Your task to perform on an android device: turn on sleep mode Image 0: 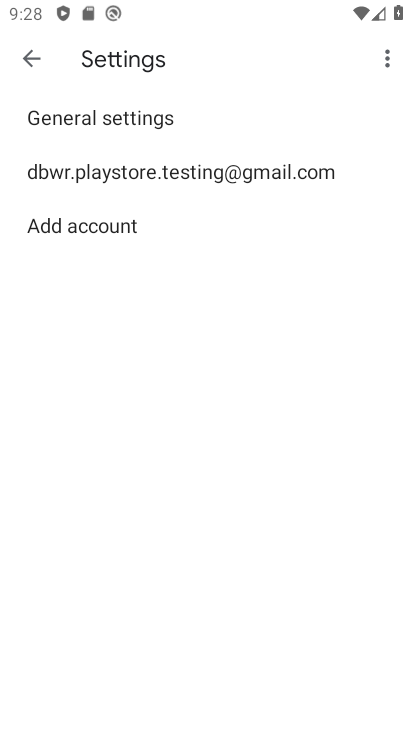
Step 0: press back button
Your task to perform on an android device: turn on sleep mode Image 1: 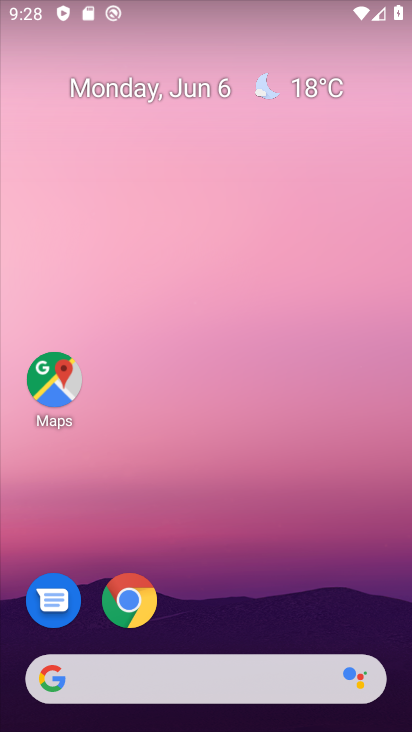
Step 1: drag from (266, 566) to (200, 4)
Your task to perform on an android device: turn on sleep mode Image 2: 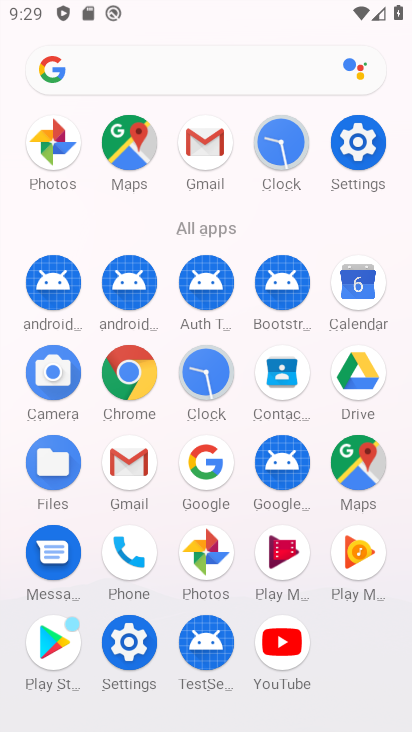
Step 2: click (130, 641)
Your task to perform on an android device: turn on sleep mode Image 3: 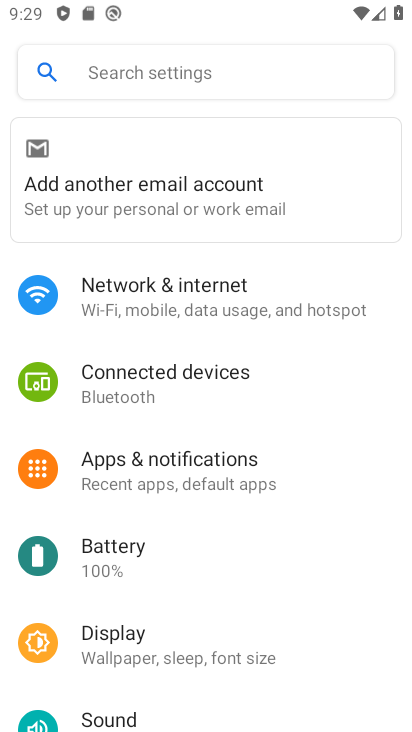
Step 3: click (212, 283)
Your task to perform on an android device: turn on sleep mode Image 4: 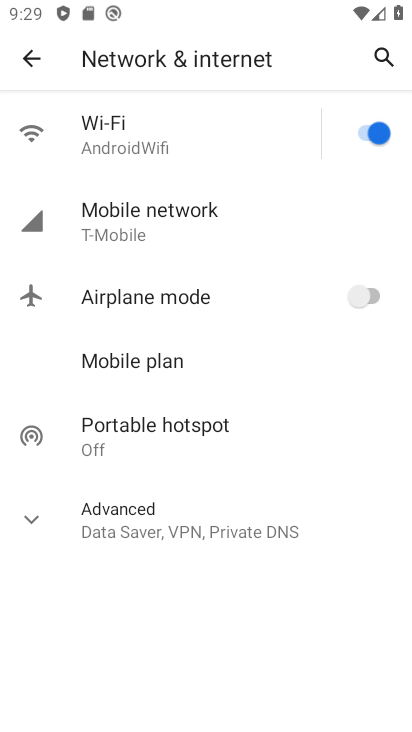
Step 4: click (46, 514)
Your task to perform on an android device: turn on sleep mode Image 5: 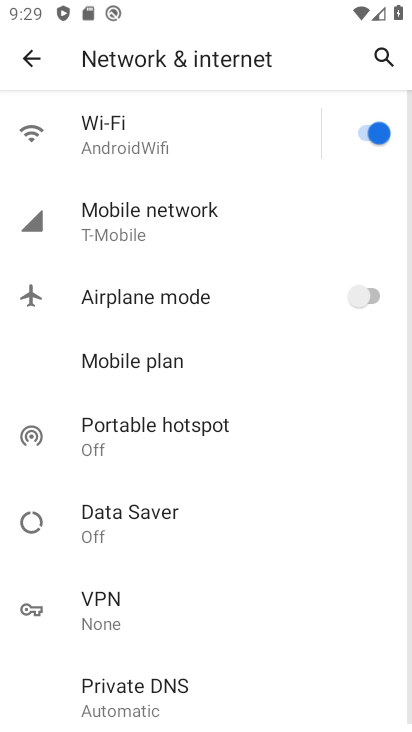
Step 5: task complete